Your task to perform on an android device: Open Yahoo.com Image 0: 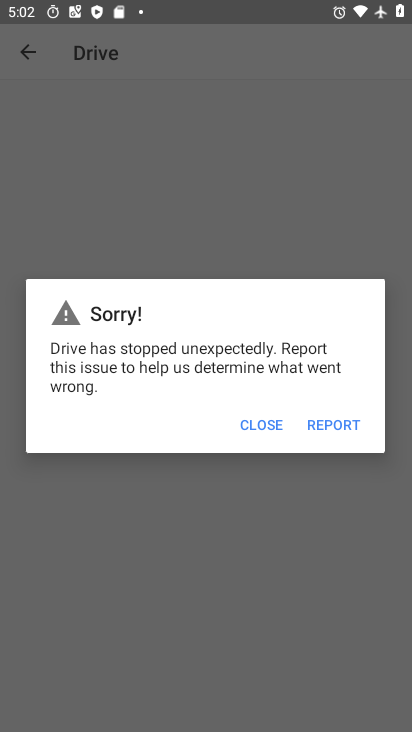
Step 0: press back button
Your task to perform on an android device: Open Yahoo.com Image 1: 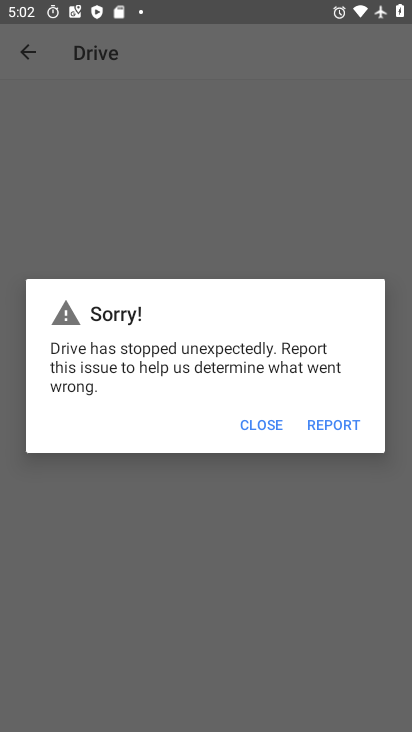
Step 1: press home button
Your task to perform on an android device: Open Yahoo.com Image 2: 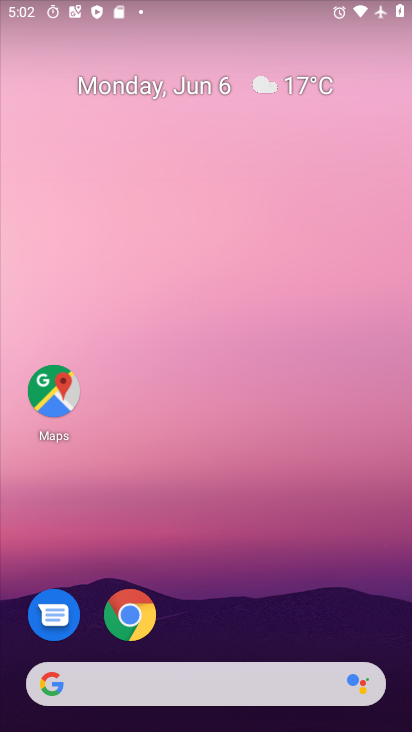
Step 2: drag from (238, 485) to (168, 2)
Your task to perform on an android device: Open Yahoo.com Image 3: 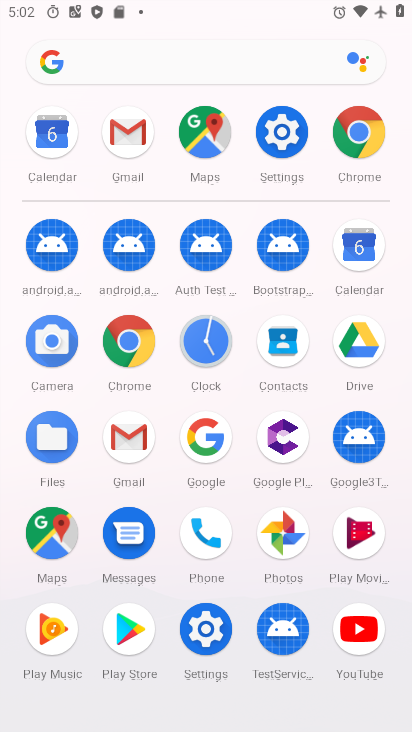
Step 3: click (126, 334)
Your task to perform on an android device: Open Yahoo.com Image 4: 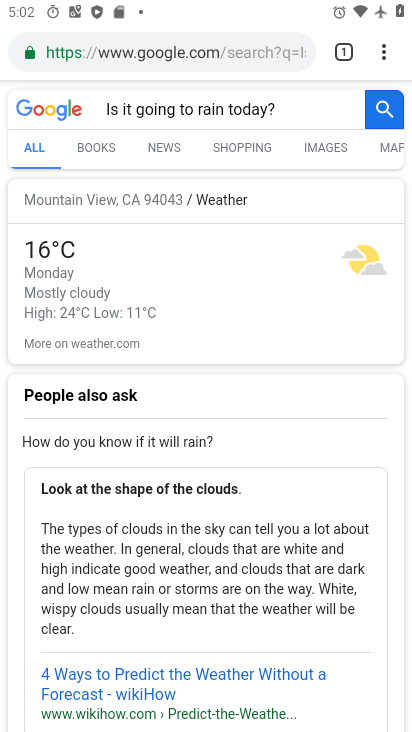
Step 4: click (156, 33)
Your task to perform on an android device: Open Yahoo.com Image 5: 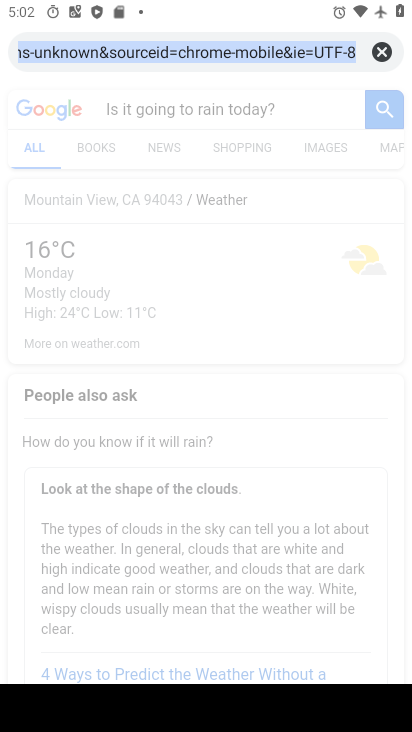
Step 5: click (377, 56)
Your task to perform on an android device: Open Yahoo.com Image 6: 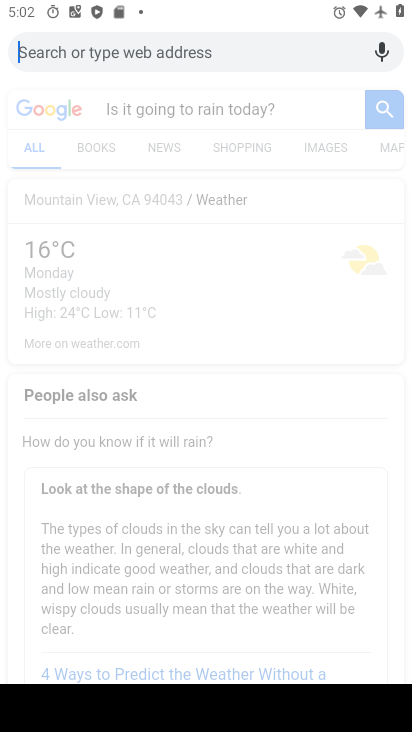
Step 6: type "Yahoo.com"
Your task to perform on an android device: Open Yahoo.com Image 7: 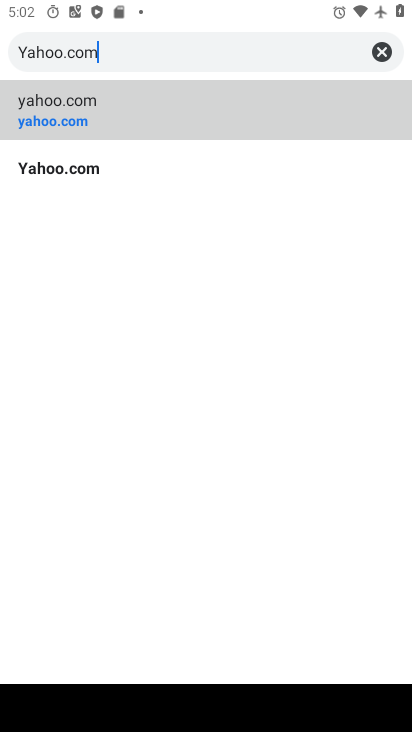
Step 7: type ""
Your task to perform on an android device: Open Yahoo.com Image 8: 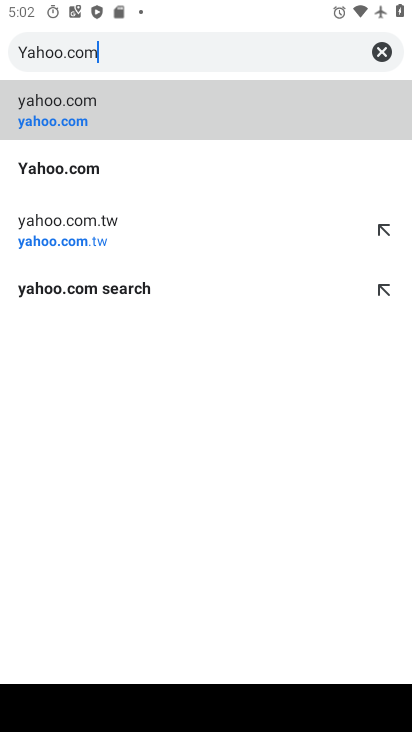
Step 8: click (113, 111)
Your task to perform on an android device: Open Yahoo.com Image 9: 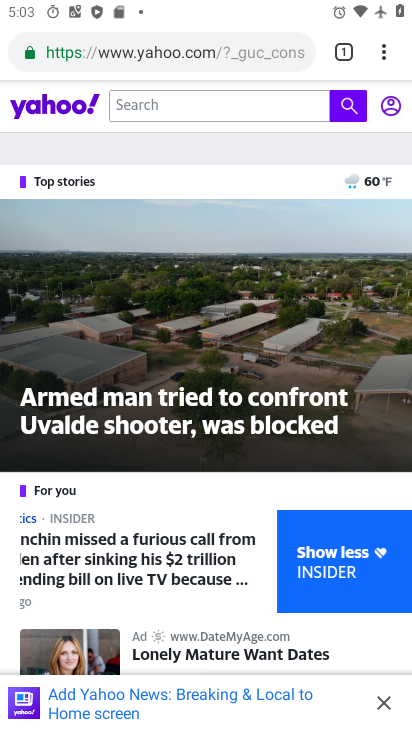
Step 9: task complete